Your task to perform on an android device: change keyboard looks Image 0: 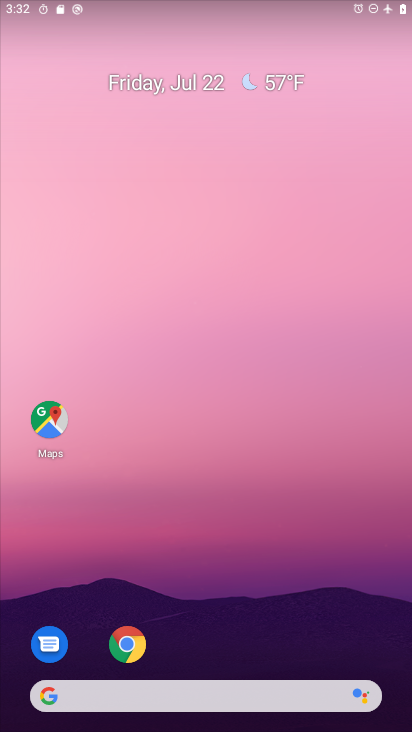
Step 0: drag from (225, 635) to (222, 275)
Your task to perform on an android device: change keyboard looks Image 1: 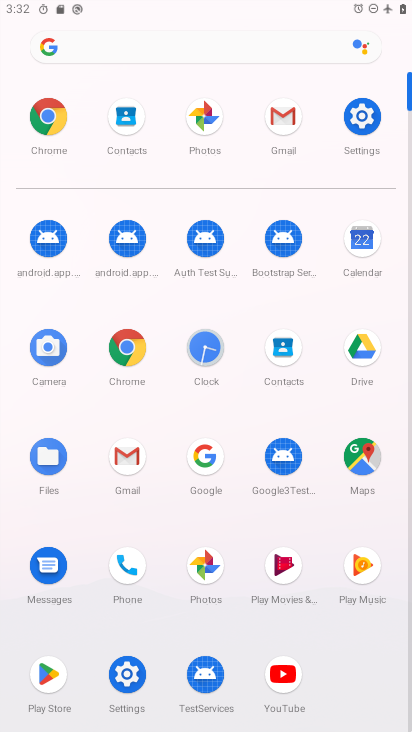
Step 1: drag from (215, 624) to (218, 200)
Your task to perform on an android device: change keyboard looks Image 2: 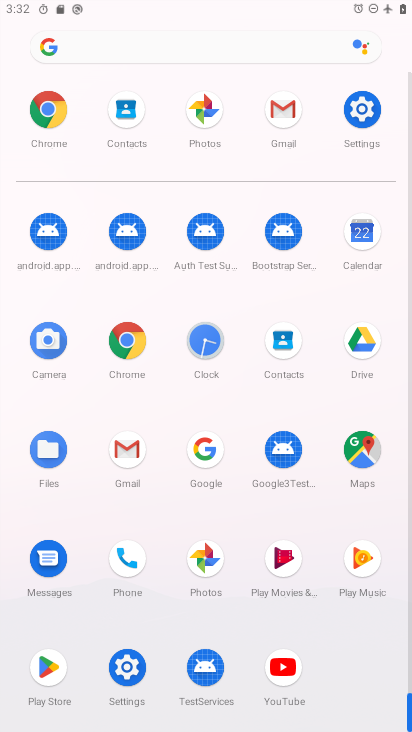
Step 2: drag from (230, 651) to (225, 282)
Your task to perform on an android device: change keyboard looks Image 3: 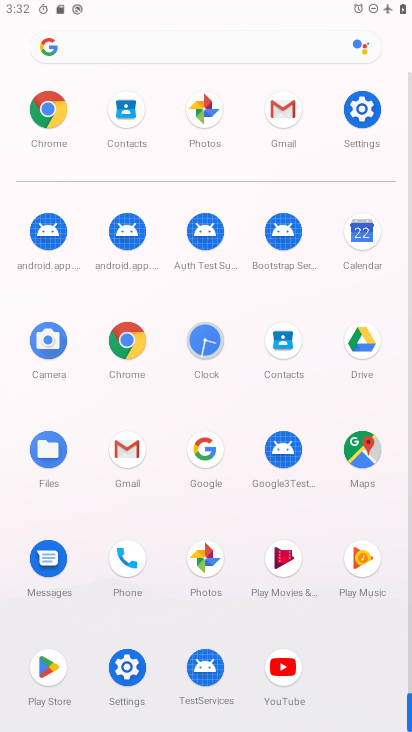
Step 3: click (353, 129)
Your task to perform on an android device: change keyboard looks Image 4: 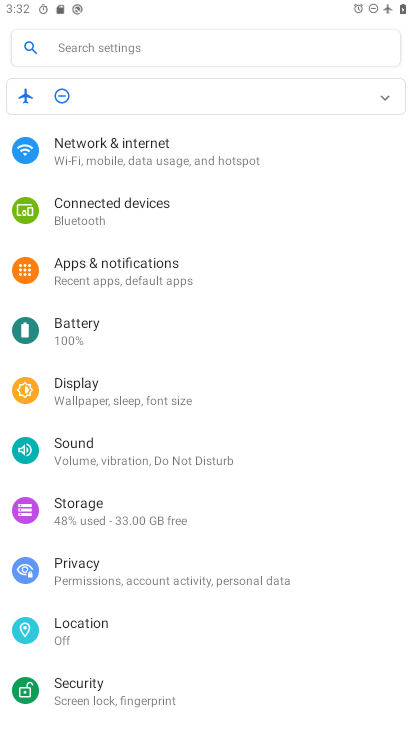
Step 4: drag from (197, 658) to (222, 281)
Your task to perform on an android device: change keyboard looks Image 5: 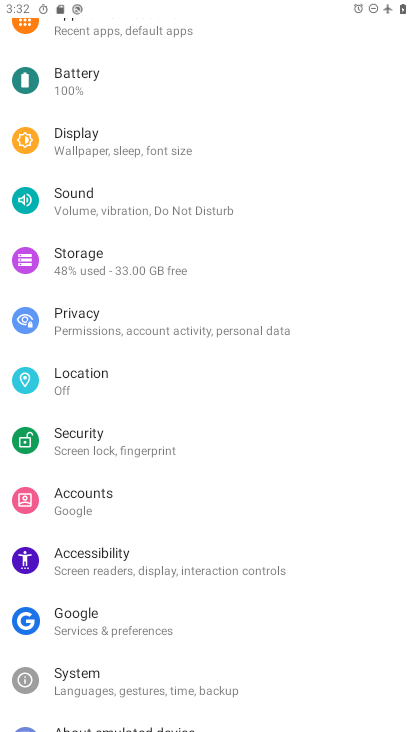
Step 5: drag from (167, 662) to (182, 292)
Your task to perform on an android device: change keyboard looks Image 6: 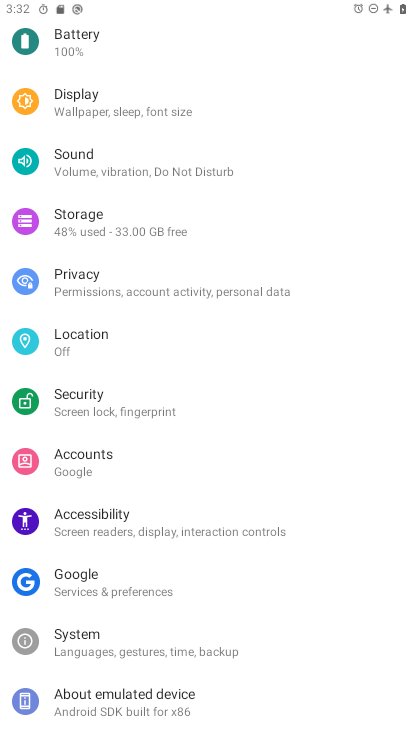
Step 6: click (88, 660)
Your task to perform on an android device: change keyboard looks Image 7: 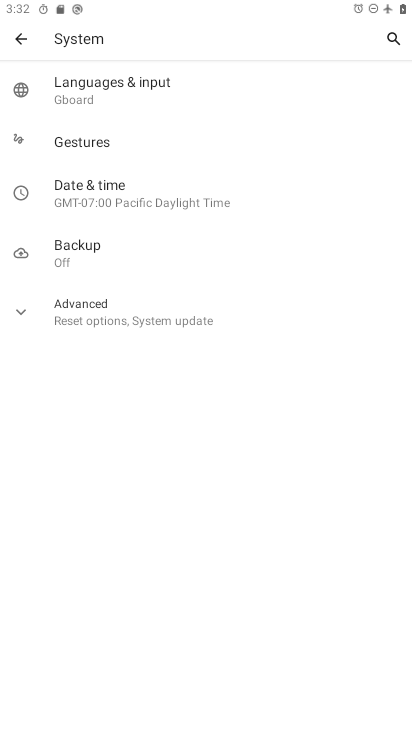
Step 7: click (137, 113)
Your task to perform on an android device: change keyboard looks Image 8: 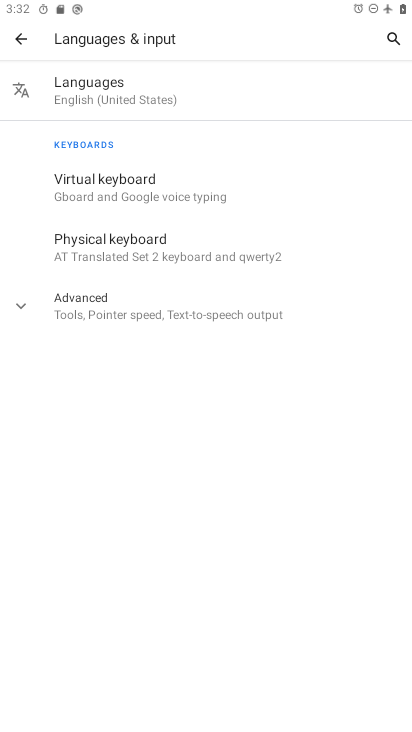
Step 8: click (104, 189)
Your task to perform on an android device: change keyboard looks Image 9: 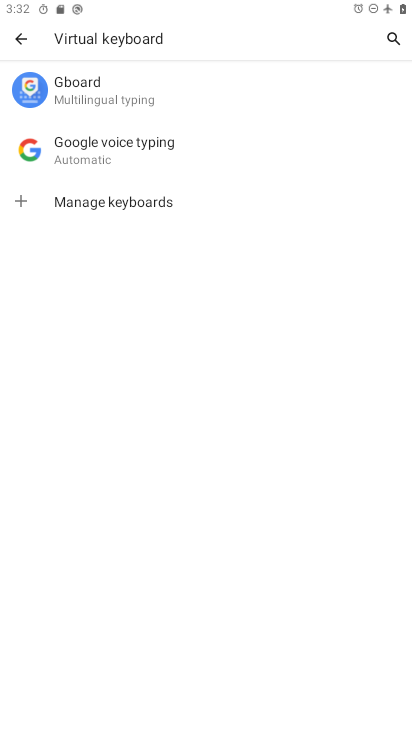
Step 9: click (153, 90)
Your task to perform on an android device: change keyboard looks Image 10: 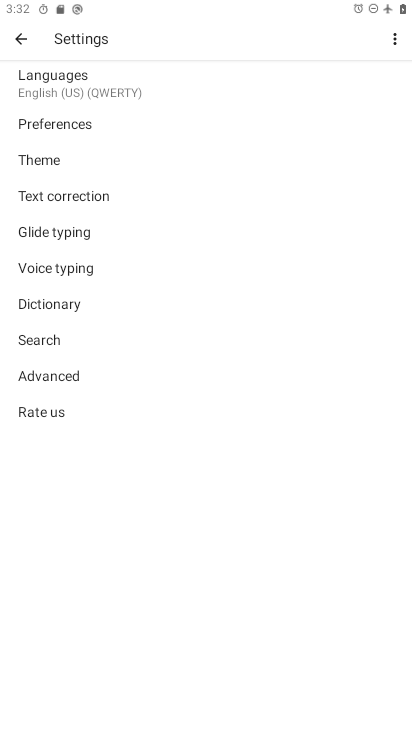
Step 10: click (18, 161)
Your task to perform on an android device: change keyboard looks Image 11: 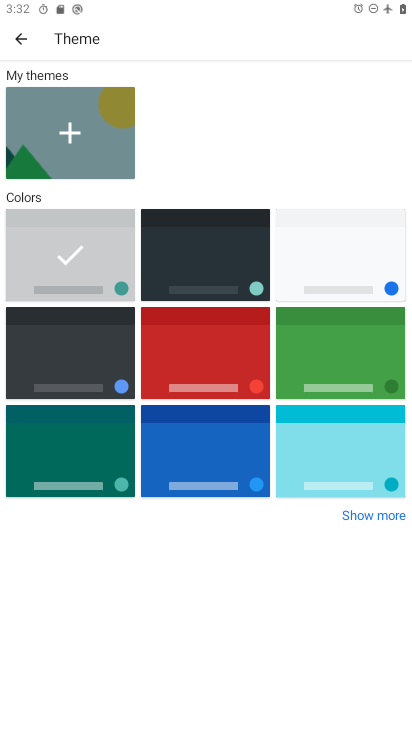
Step 11: click (312, 353)
Your task to perform on an android device: change keyboard looks Image 12: 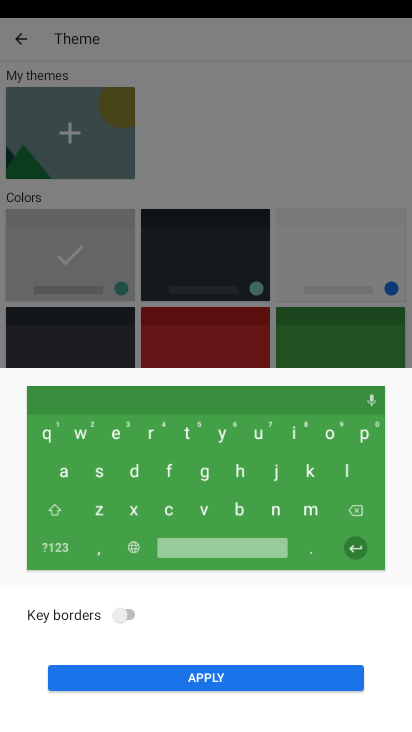
Step 12: click (167, 677)
Your task to perform on an android device: change keyboard looks Image 13: 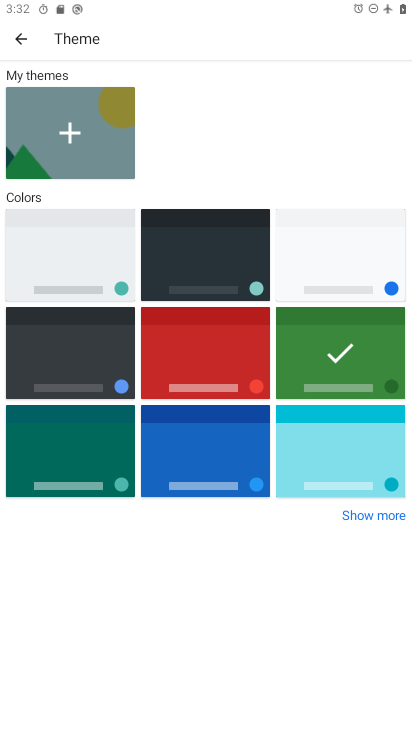
Step 13: task complete